Your task to perform on an android device: What's on the menu at McDonalds? Image 0: 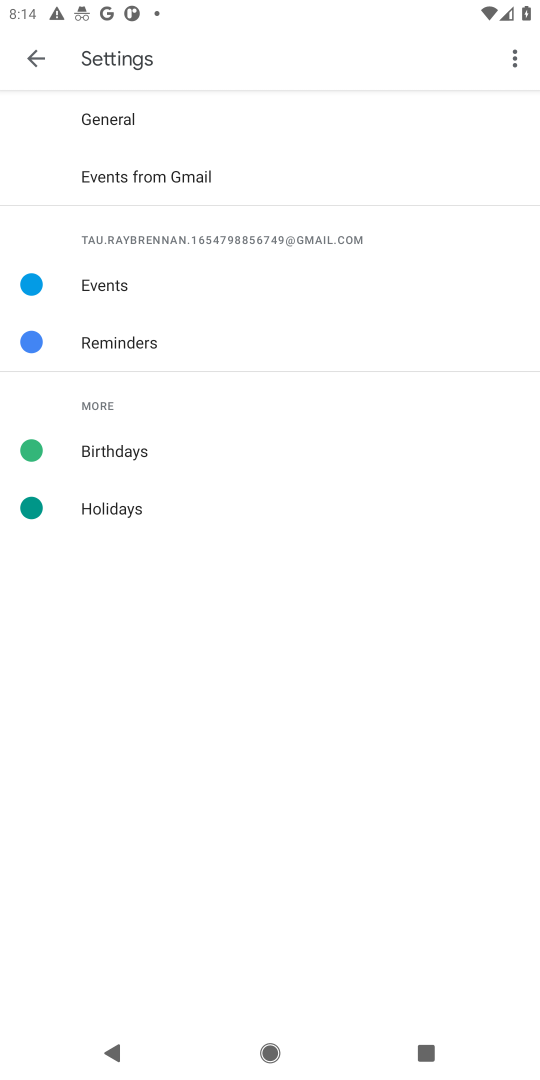
Step 0: press home button
Your task to perform on an android device: What's on the menu at McDonalds? Image 1: 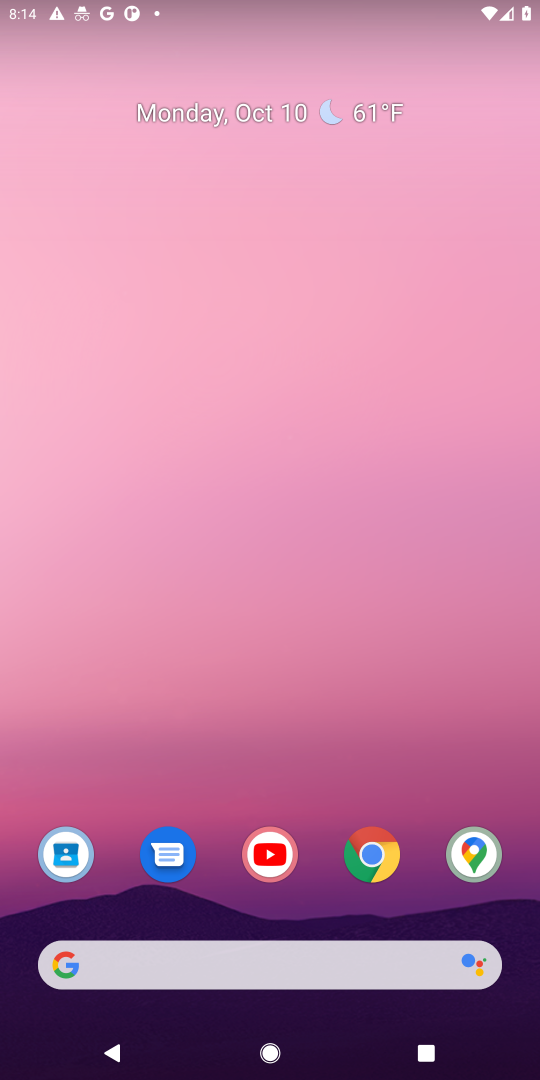
Step 1: click (381, 860)
Your task to perform on an android device: What's on the menu at McDonalds? Image 2: 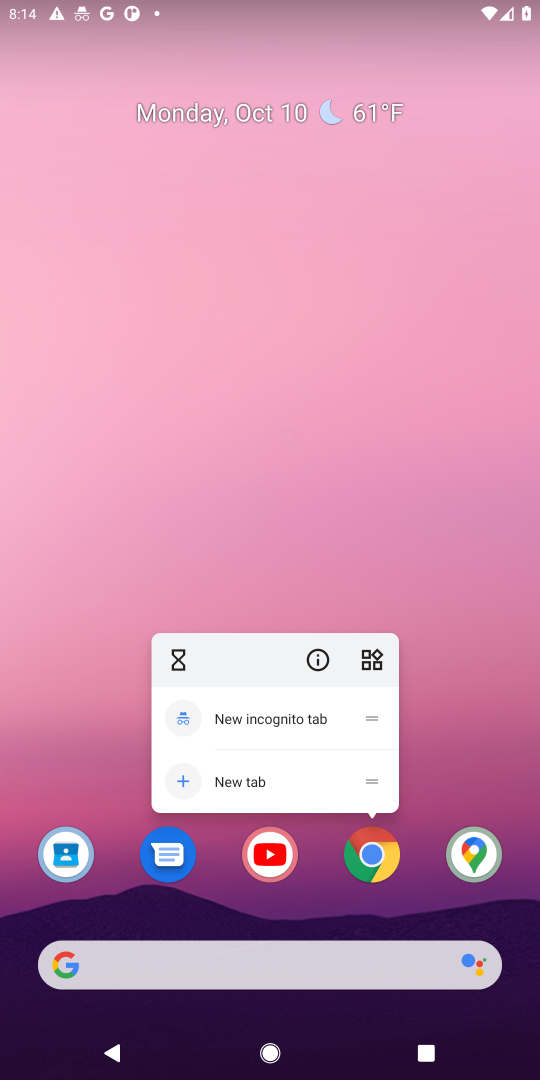
Step 2: click (381, 860)
Your task to perform on an android device: What's on the menu at McDonalds? Image 3: 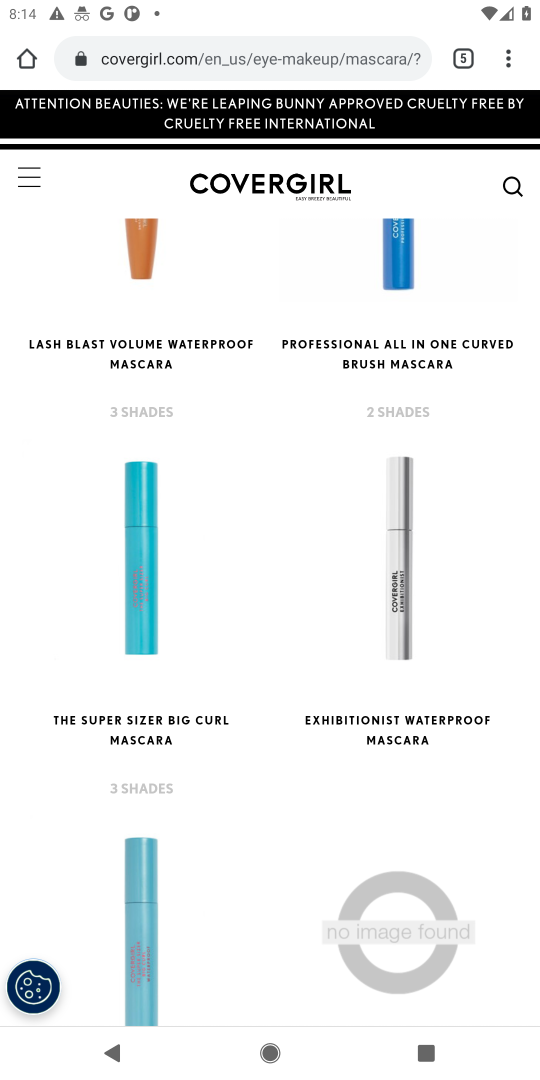
Step 3: click (299, 57)
Your task to perform on an android device: What's on the menu at McDonalds? Image 4: 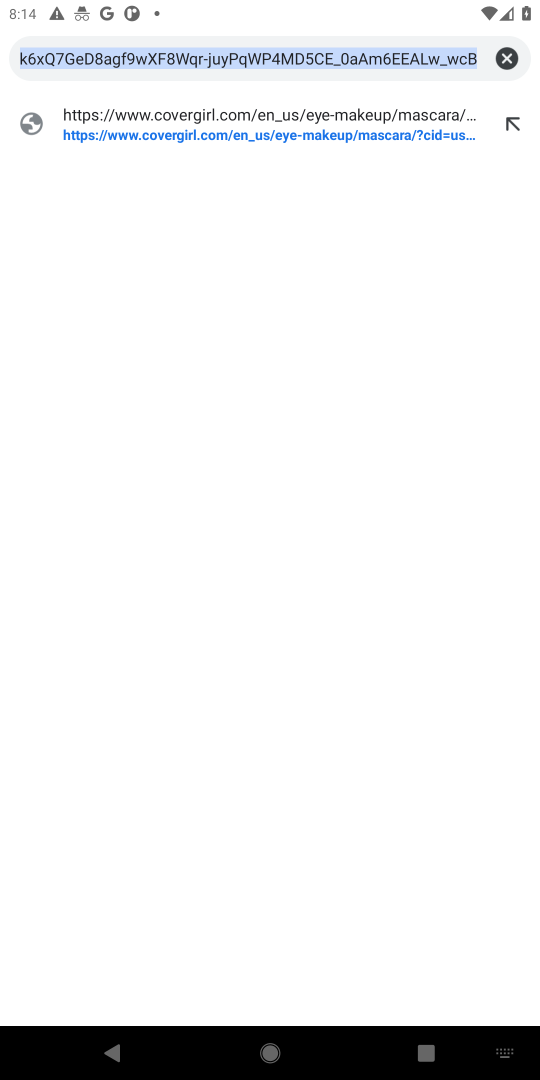
Step 4: click (505, 58)
Your task to perform on an android device: What's on the menu at McDonalds? Image 5: 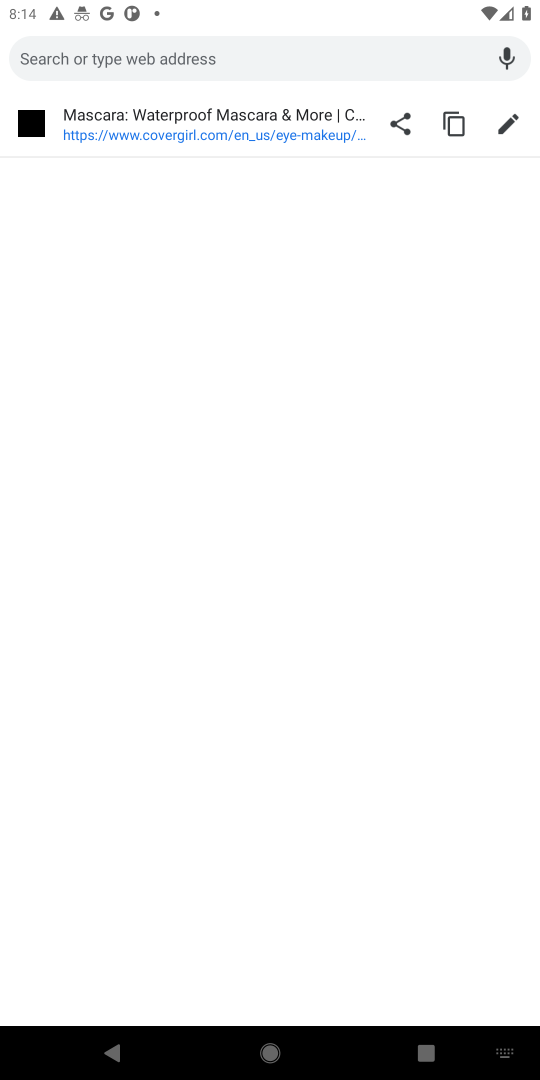
Step 5: type "menu at McDonalds"
Your task to perform on an android device: What's on the menu at McDonalds? Image 6: 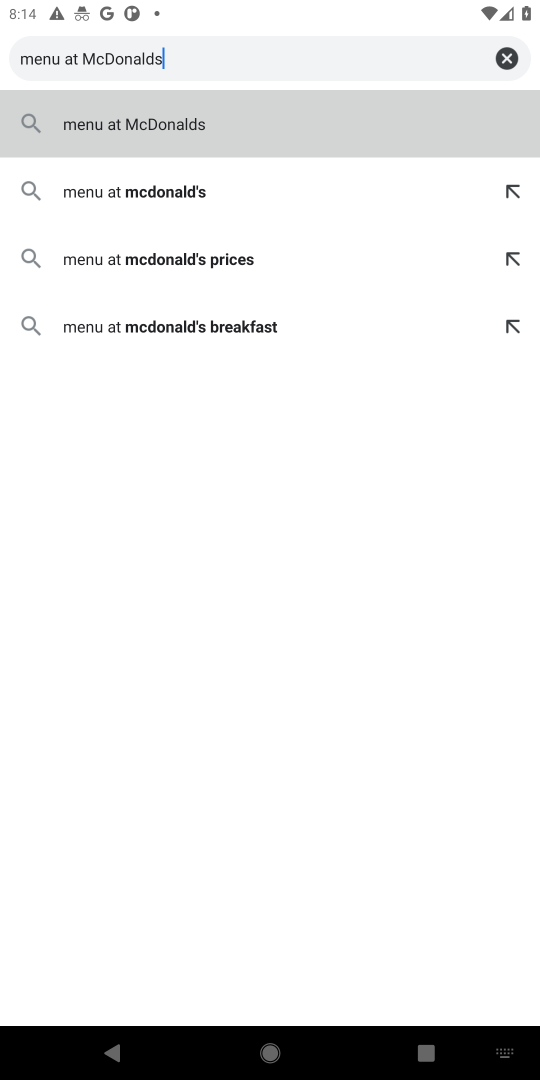
Step 6: click (166, 125)
Your task to perform on an android device: What's on the menu at McDonalds? Image 7: 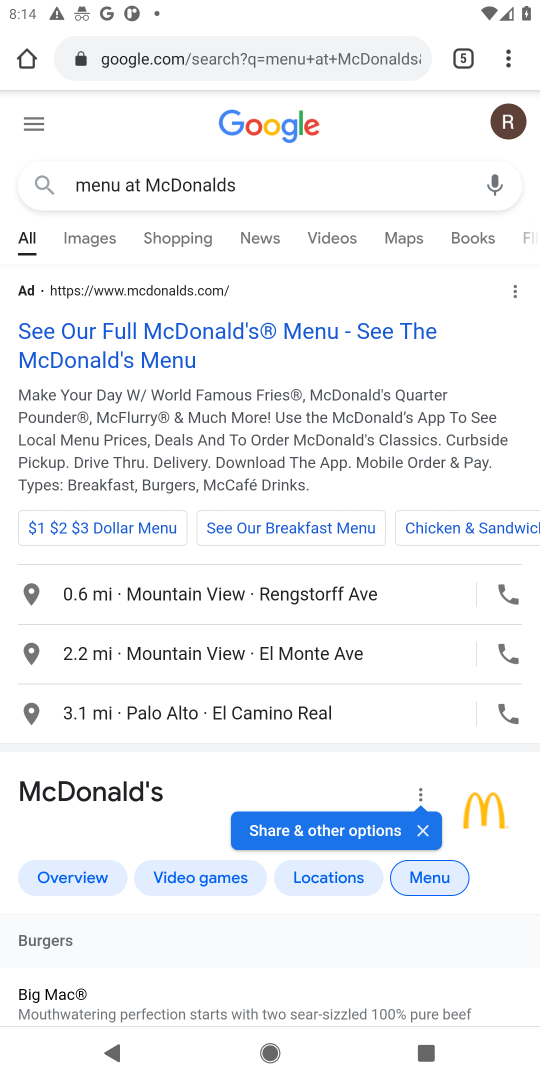
Step 7: drag from (194, 731) to (441, 71)
Your task to perform on an android device: What's on the menu at McDonalds? Image 8: 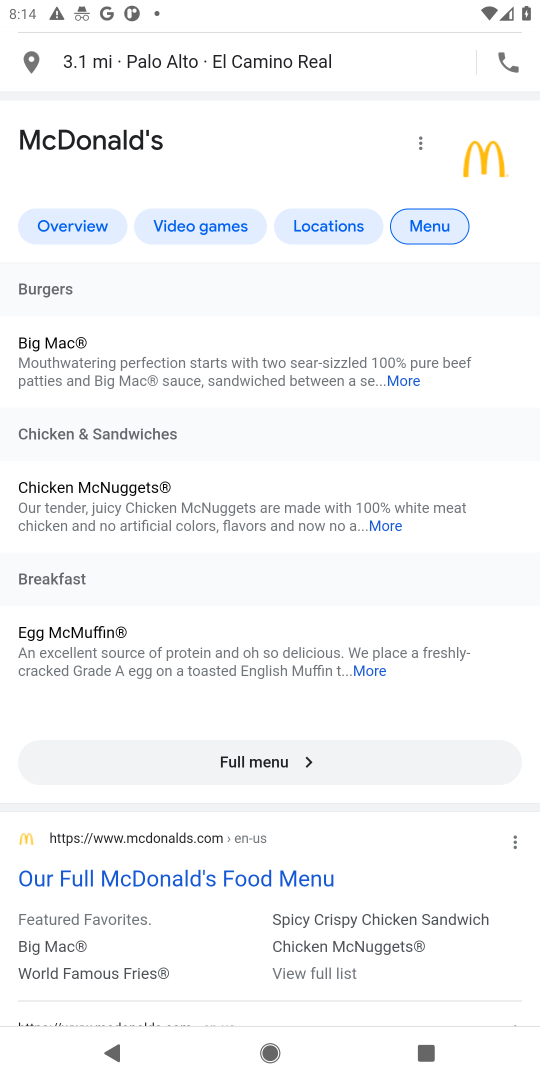
Step 8: click (198, 873)
Your task to perform on an android device: What's on the menu at McDonalds? Image 9: 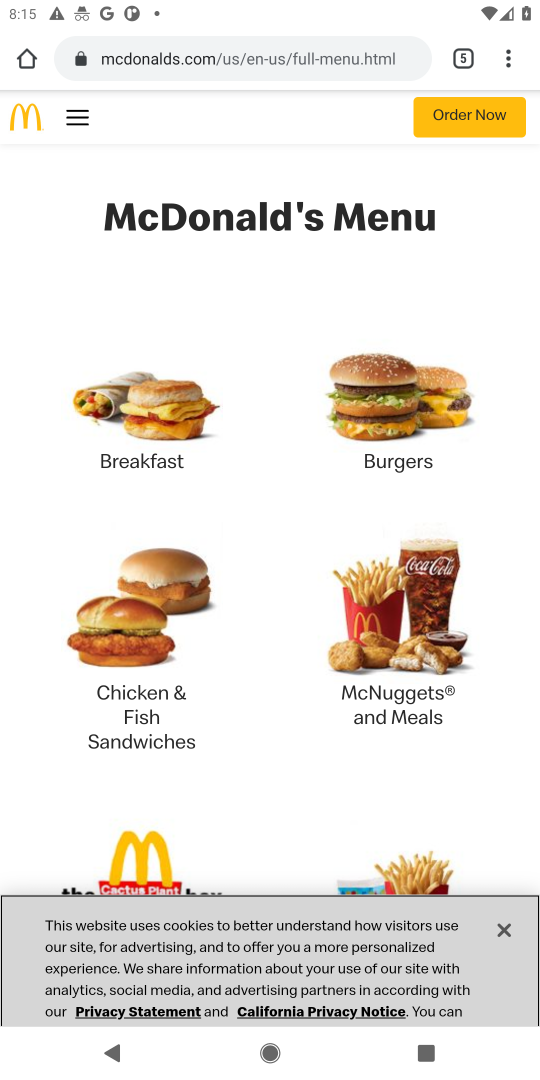
Step 9: drag from (198, 875) to (366, 333)
Your task to perform on an android device: What's on the menu at McDonalds? Image 10: 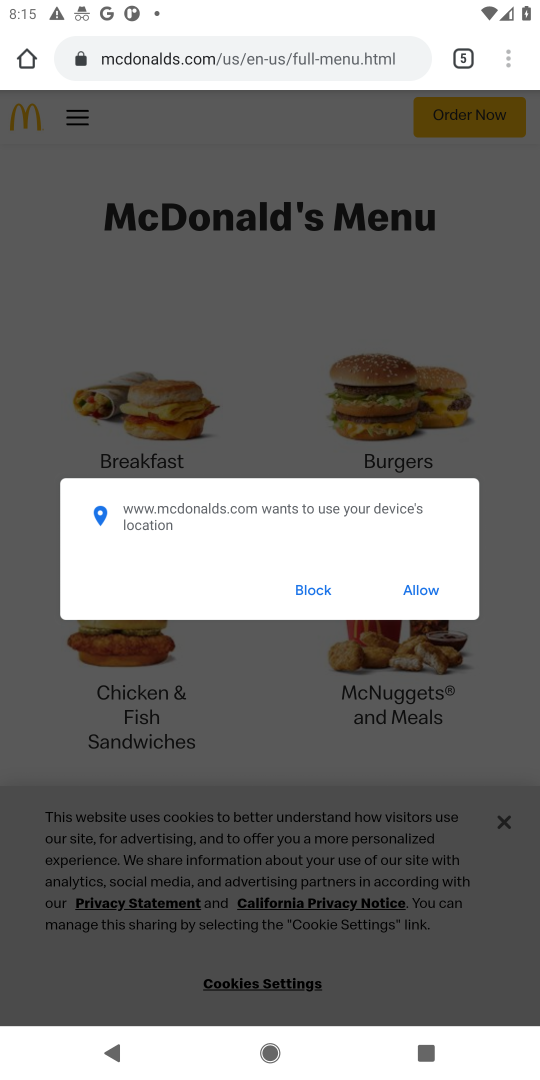
Step 10: click (322, 593)
Your task to perform on an android device: What's on the menu at McDonalds? Image 11: 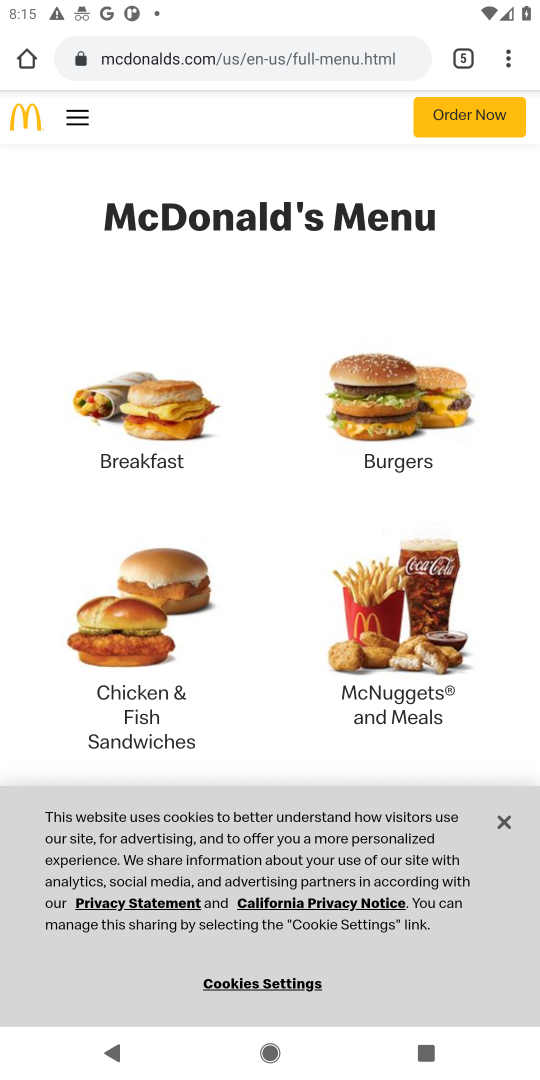
Step 11: click (509, 813)
Your task to perform on an android device: What's on the menu at McDonalds? Image 12: 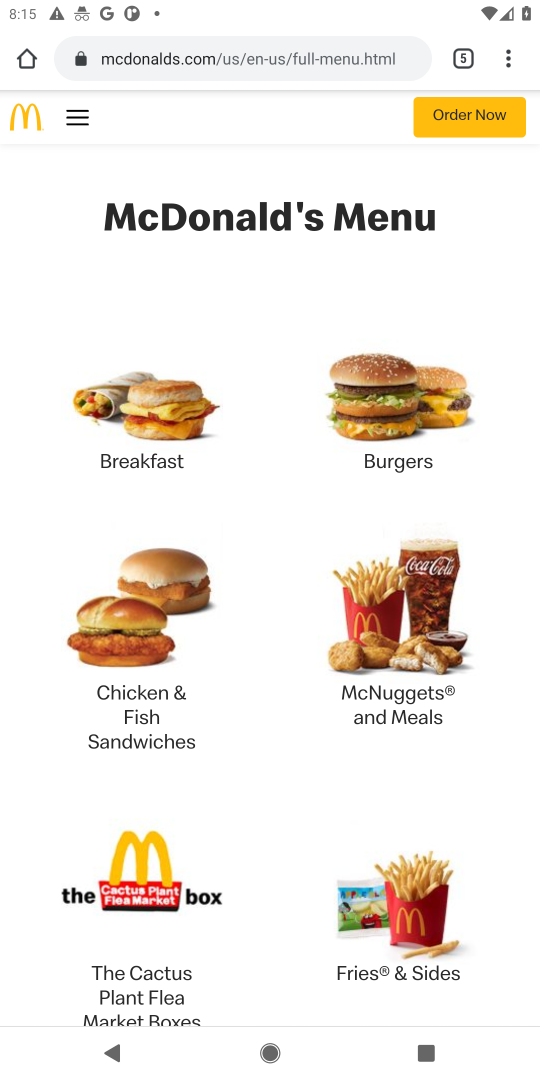
Step 12: task complete